Your task to perform on an android device: open device folders in google photos Image 0: 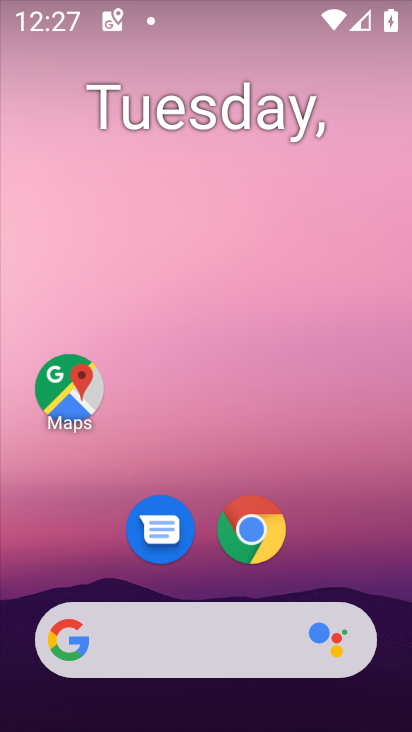
Step 0: drag from (236, 712) to (166, 463)
Your task to perform on an android device: open device folders in google photos Image 1: 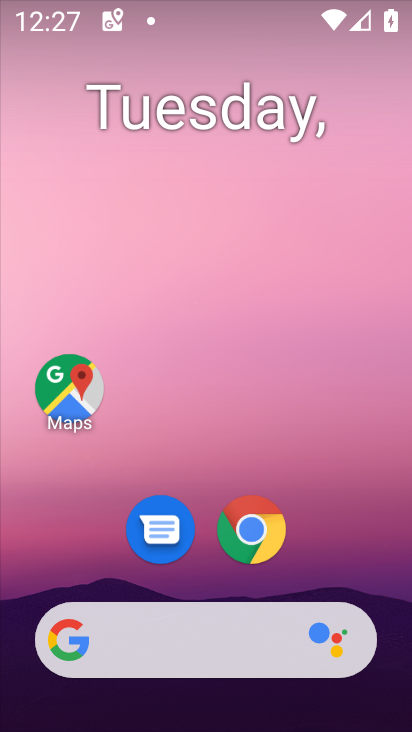
Step 1: drag from (218, 673) to (184, 248)
Your task to perform on an android device: open device folders in google photos Image 2: 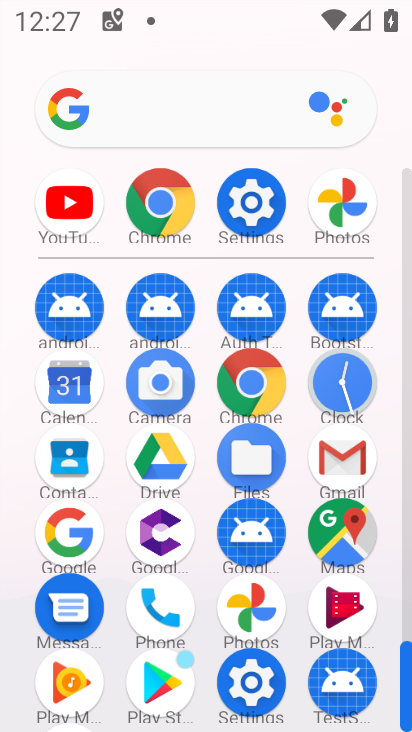
Step 2: click (263, 605)
Your task to perform on an android device: open device folders in google photos Image 3: 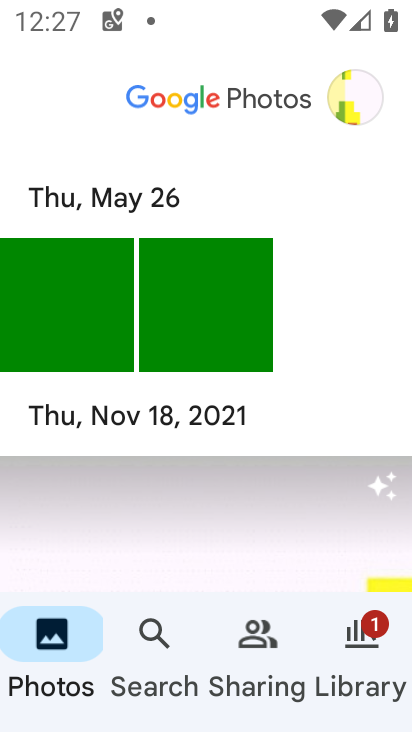
Step 3: click (162, 641)
Your task to perform on an android device: open device folders in google photos Image 4: 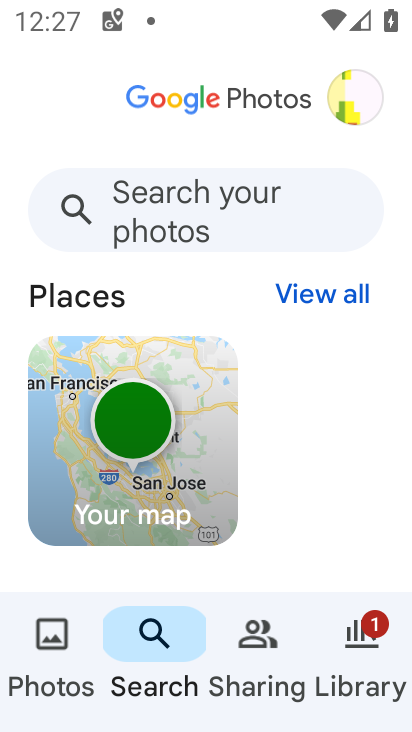
Step 4: click (147, 215)
Your task to perform on an android device: open device folders in google photos Image 5: 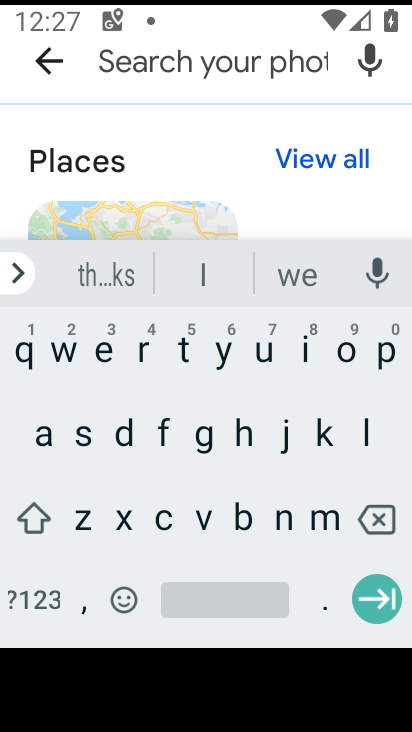
Step 5: click (128, 419)
Your task to perform on an android device: open device folders in google photos Image 6: 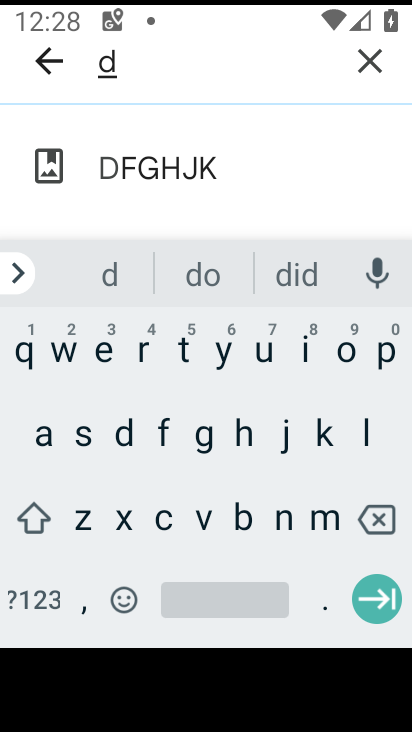
Step 6: click (107, 361)
Your task to perform on an android device: open device folders in google photos Image 7: 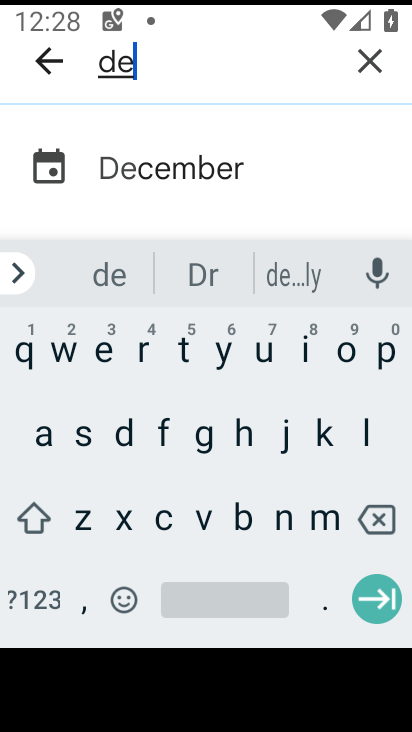
Step 7: click (207, 522)
Your task to perform on an android device: open device folders in google photos Image 8: 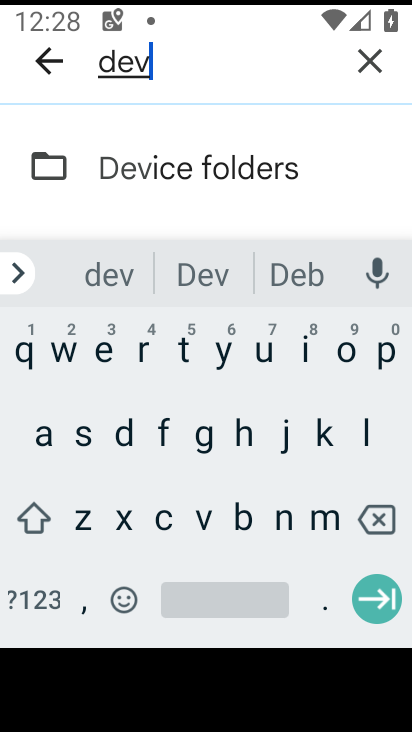
Step 8: click (181, 171)
Your task to perform on an android device: open device folders in google photos Image 9: 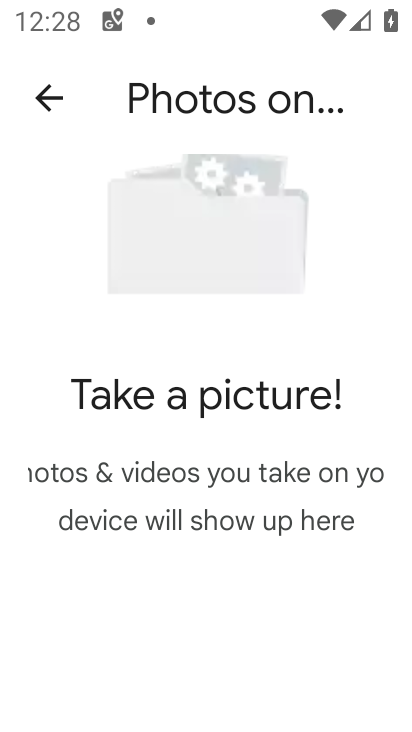
Step 9: task complete